Your task to perform on an android device: toggle notification dots Image 0: 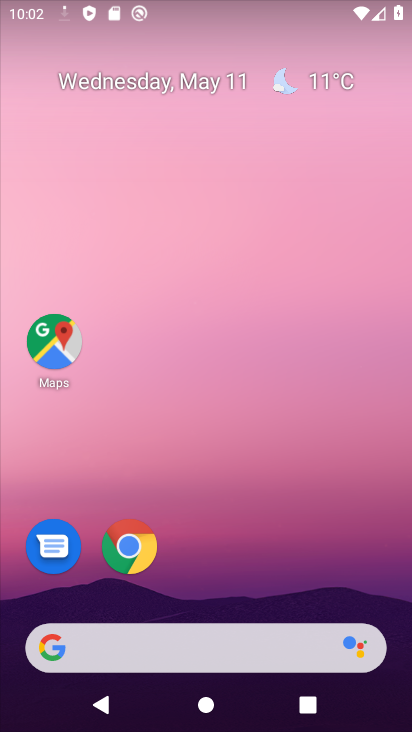
Step 0: drag from (272, 538) to (309, 85)
Your task to perform on an android device: toggle notification dots Image 1: 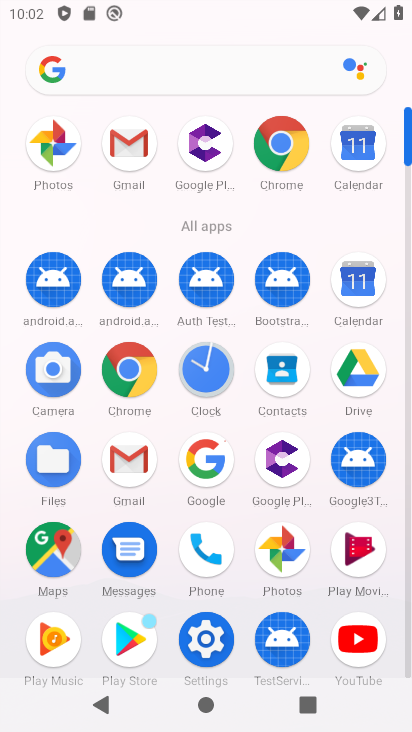
Step 1: click (211, 631)
Your task to perform on an android device: toggle notification dots Image 2: 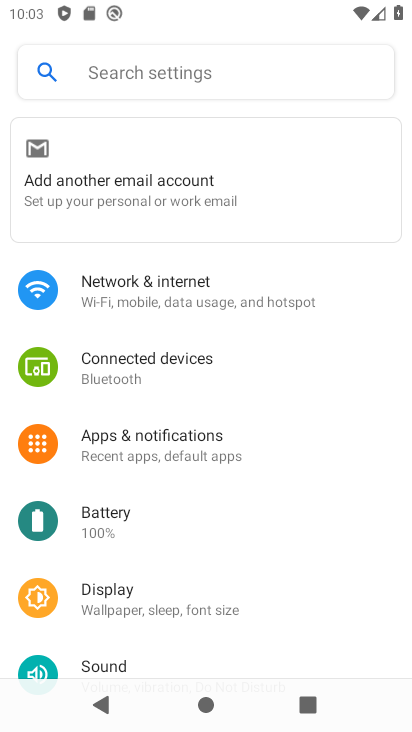
Step 2: click (115, 434)
Your task to perform on an android device: toggle notification dots Image 3: 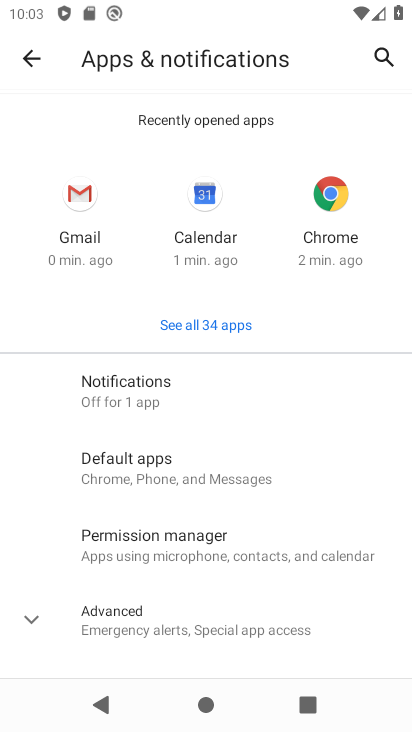
Step 3: click (94, 384)
Your task to perform on an android device: toggle notification dots Image 4: 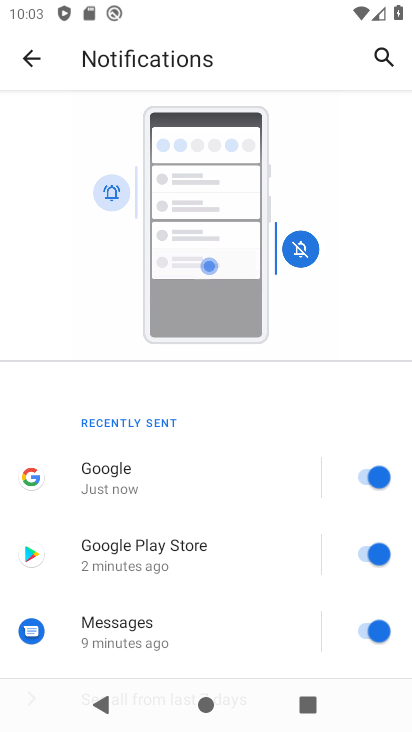
Step 4: drag from (280, 367) to (310, 155)
Your task to perform on an android device: toggle notification dots Image 5: 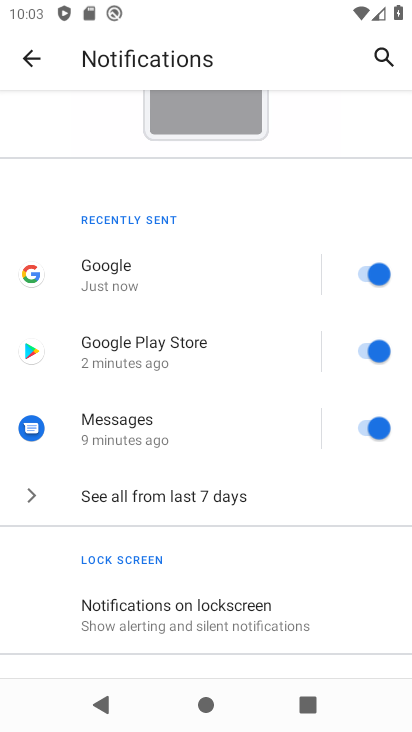
Step 5: drag from (308, 560) to (330, 158)
Your task to perform on an android device: toggle notification dots Image 6: 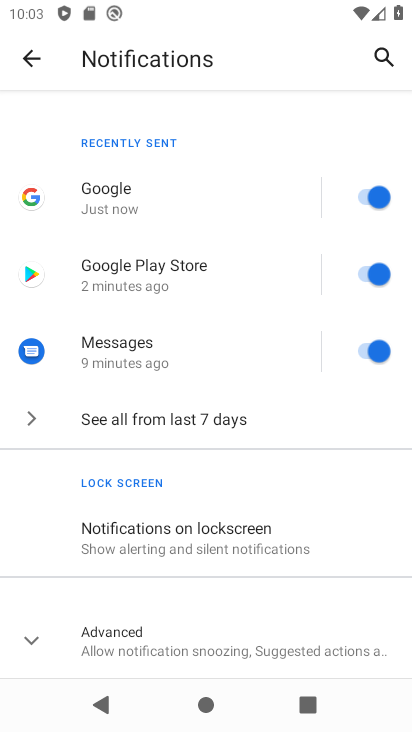
Step 6: click (232, 638)
Your task to perform on an android device: toggle notification dots Image 7: 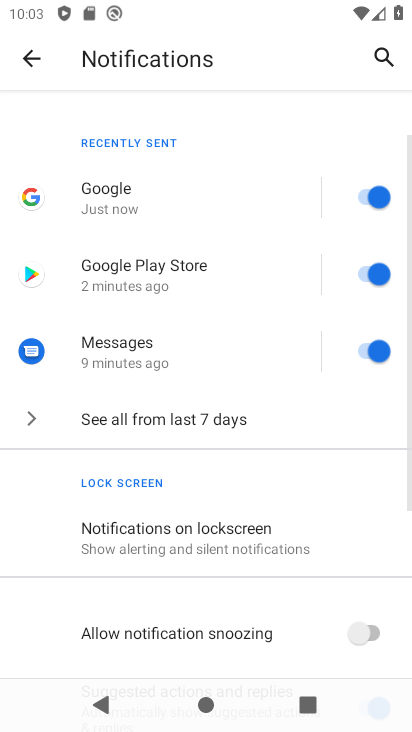
Step 7: drag from (302, 566) to (313, 214)
Your task to perform on an android device: toggle notification dots Image 8: 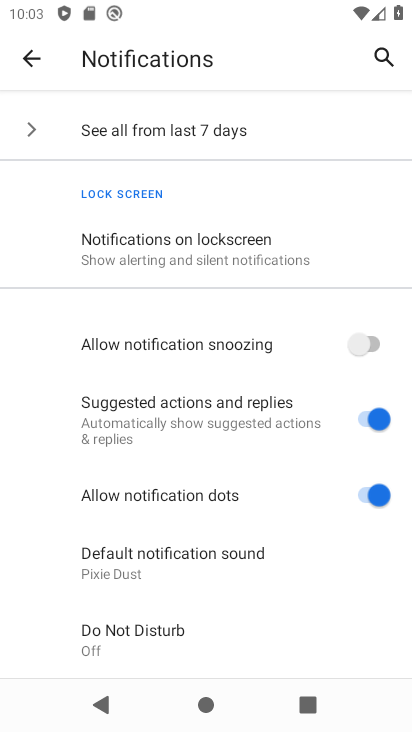
Step 8: click (387, 485)
Your task to perform on an android device: toggle notification dots Image 9: 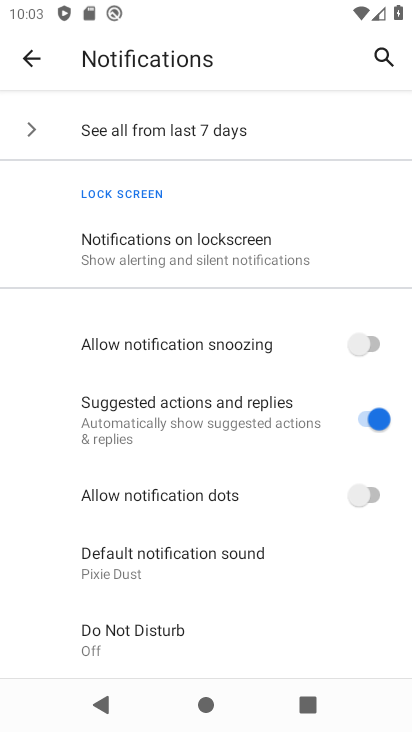
Step 9: task complete